Your task to perform on an android device: Search for Italian restaurants on Maps Image 0: 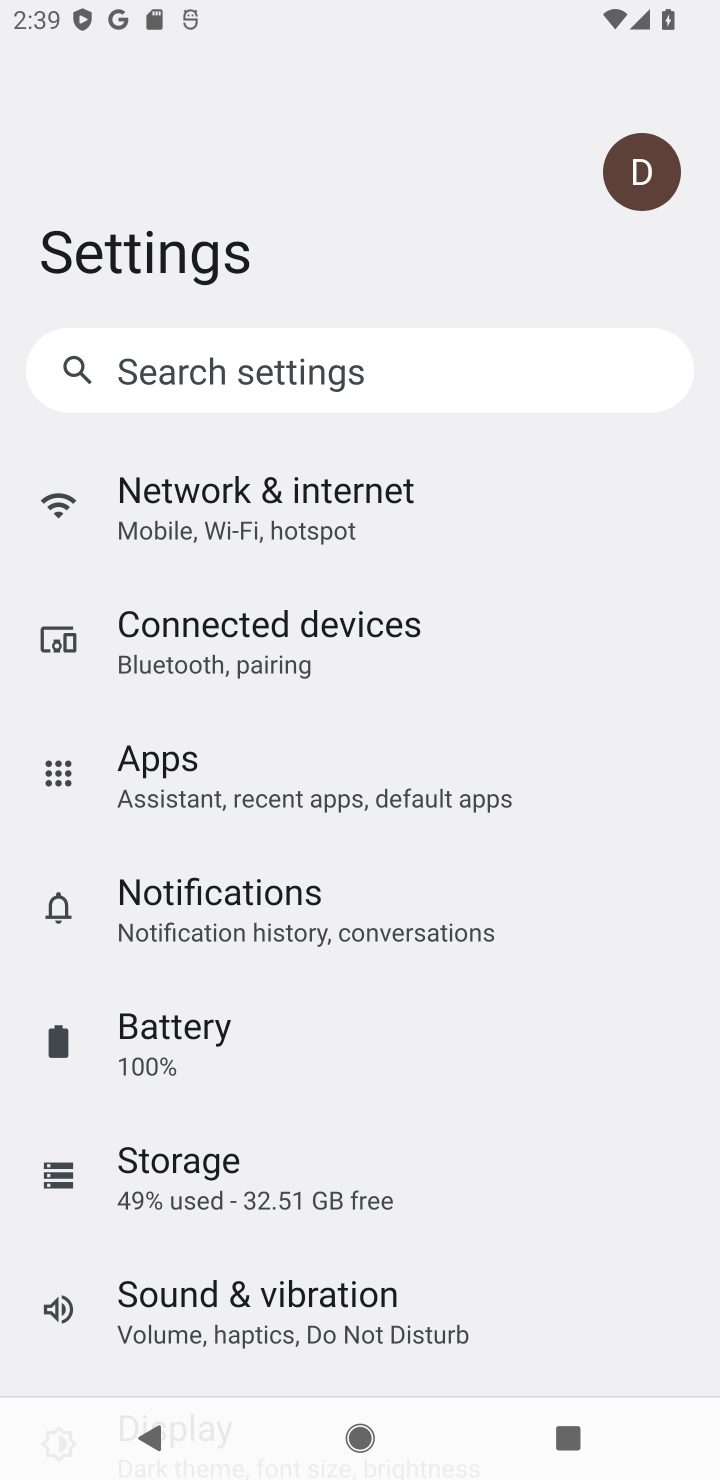
Step 0: press home button
Your task to perform on an android device: Search for Italian restaurants on Maps Image 1: 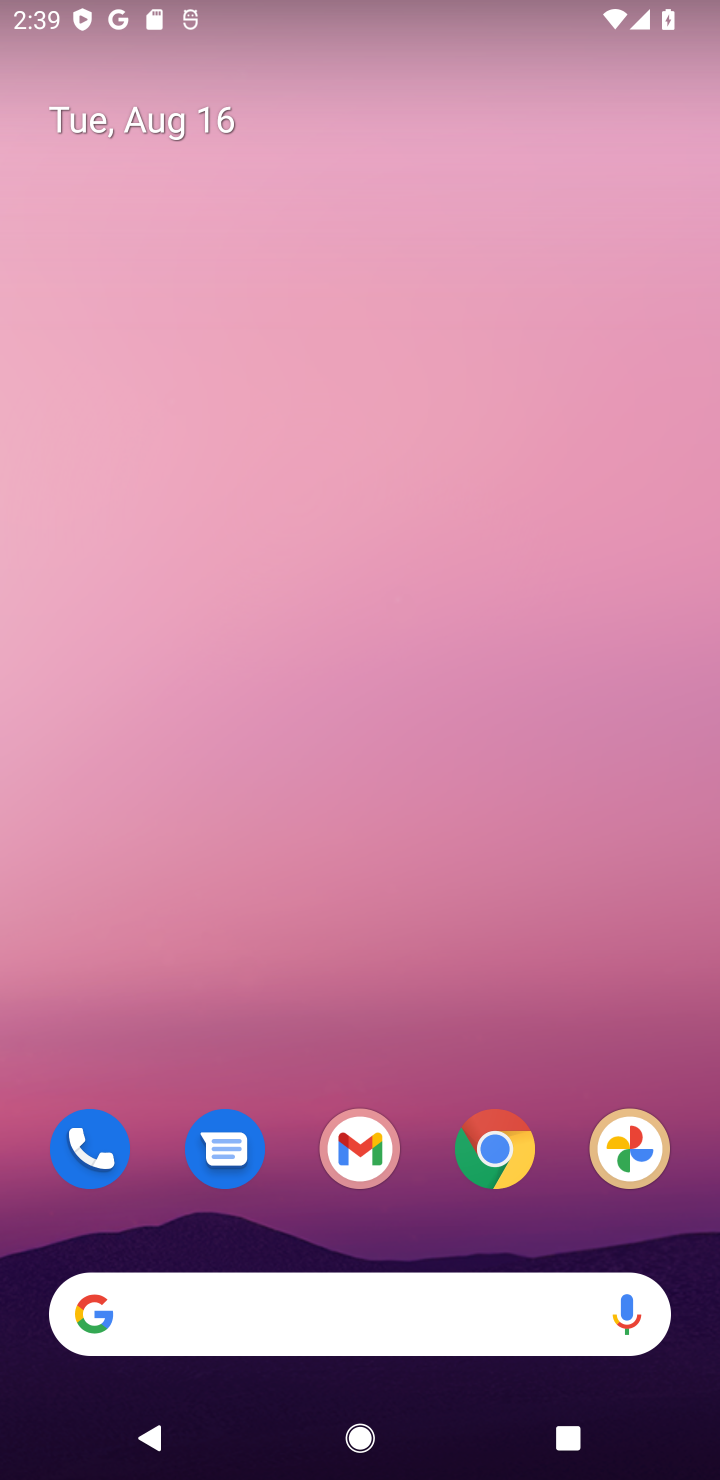
Step 1: drag from (419, 675) to (390, 0)
Your task to perform on an android device: Search for Italian restaurants on Maps Image 2: 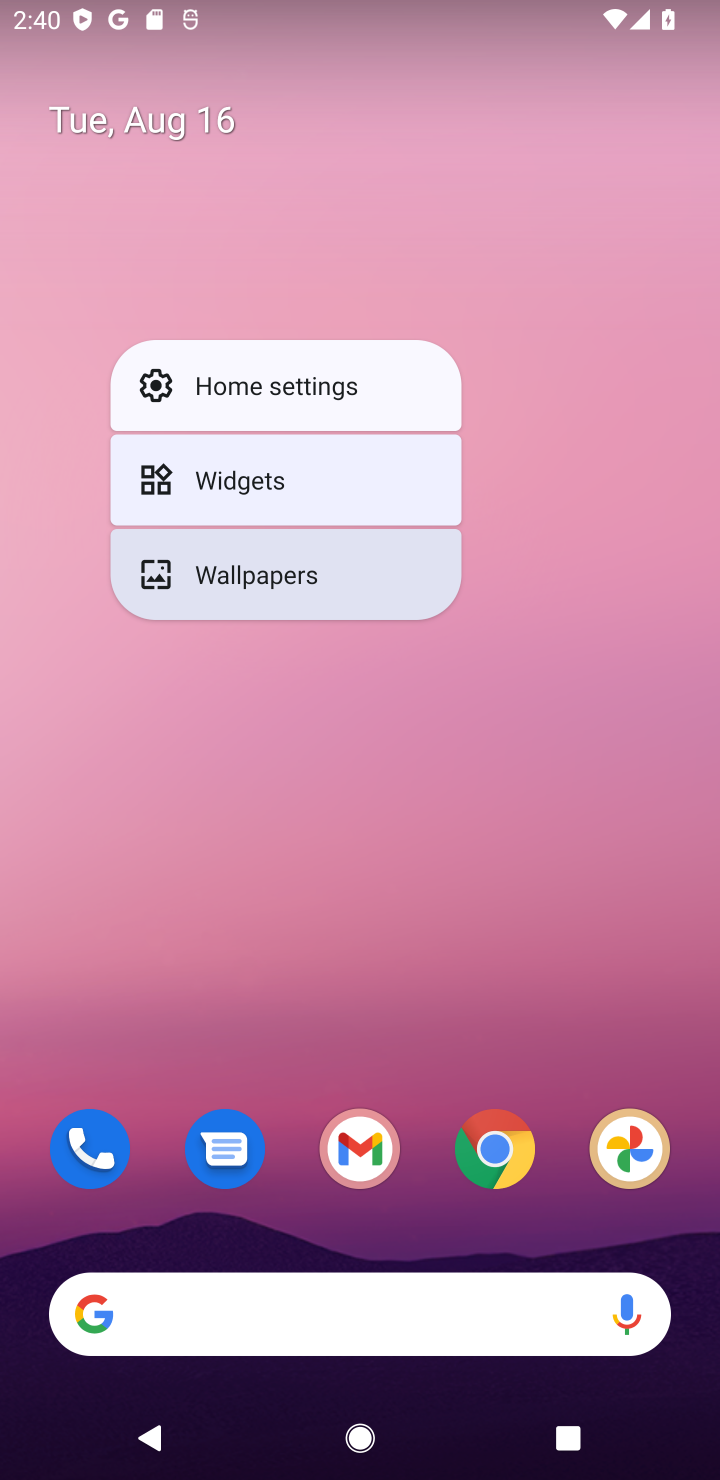
Step 2: click (503, 524)
Your task to perform on an android device: Search for Italian restaurants on Maps Image 3: 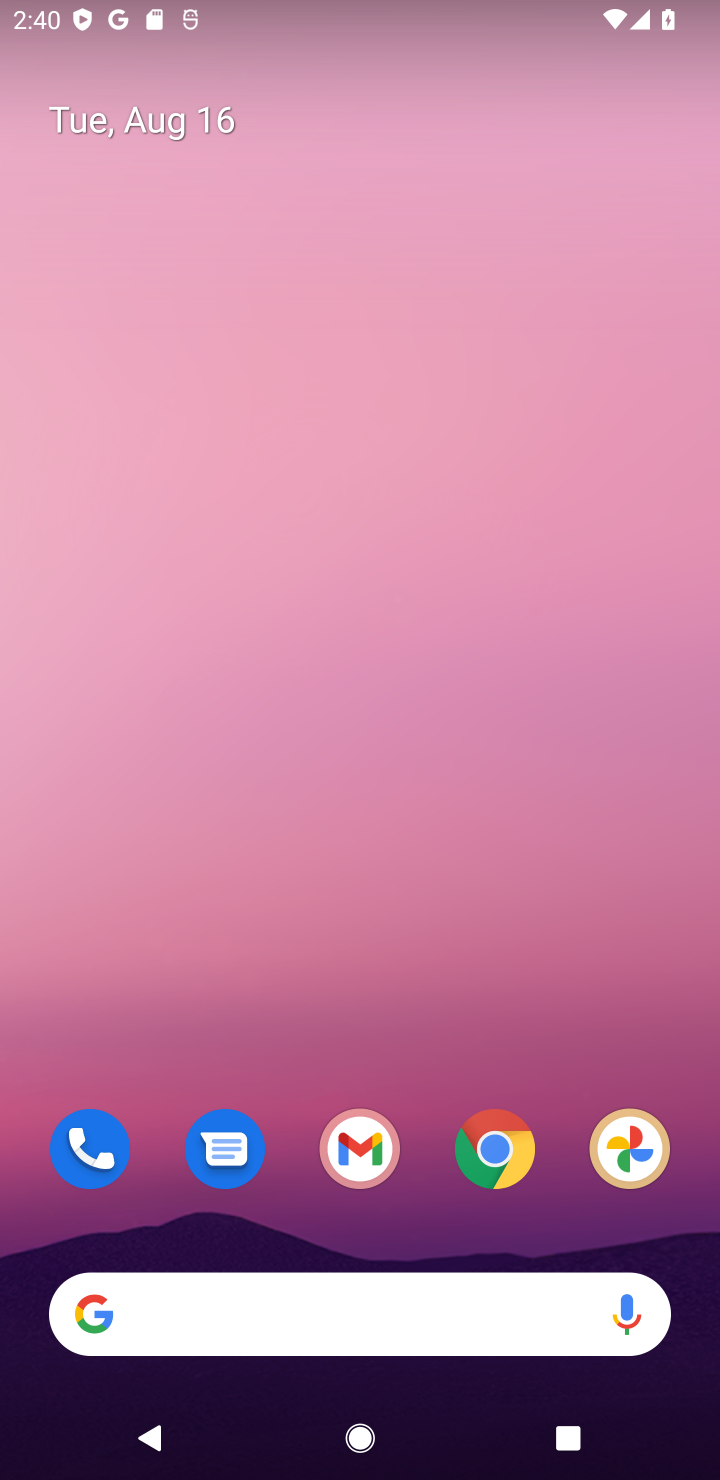
Step 3: drag from (370, 1032) to (454, 0)
Your task to perform on an android device: Search for Italian restaurants on Maps Image 4: 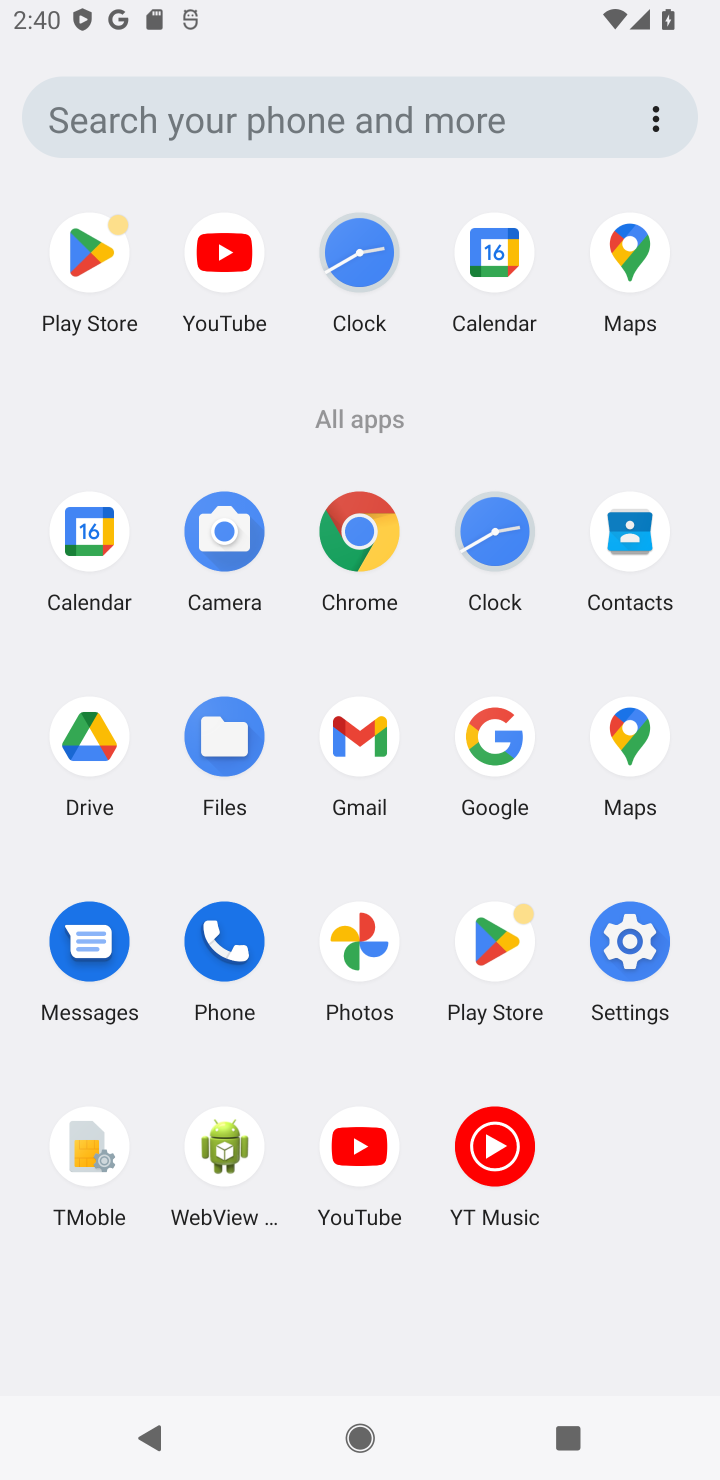
Step 4: click (625, 727)
Your task to perform on an android device: Search for Italian restaurants on Maps Image 5: 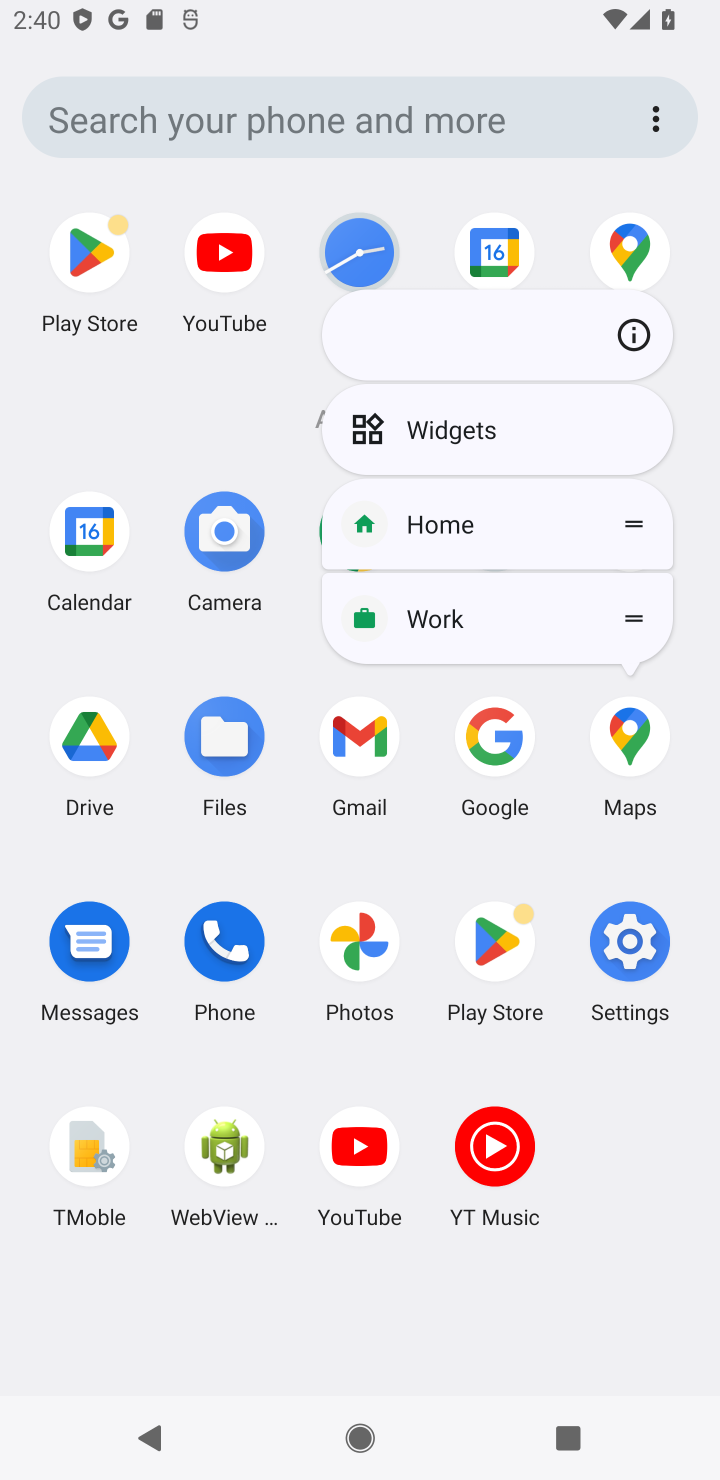
Step 5: click (625, 729)
Your task to perform on an android device: Search for Italian restaurants on Maps Image 6: 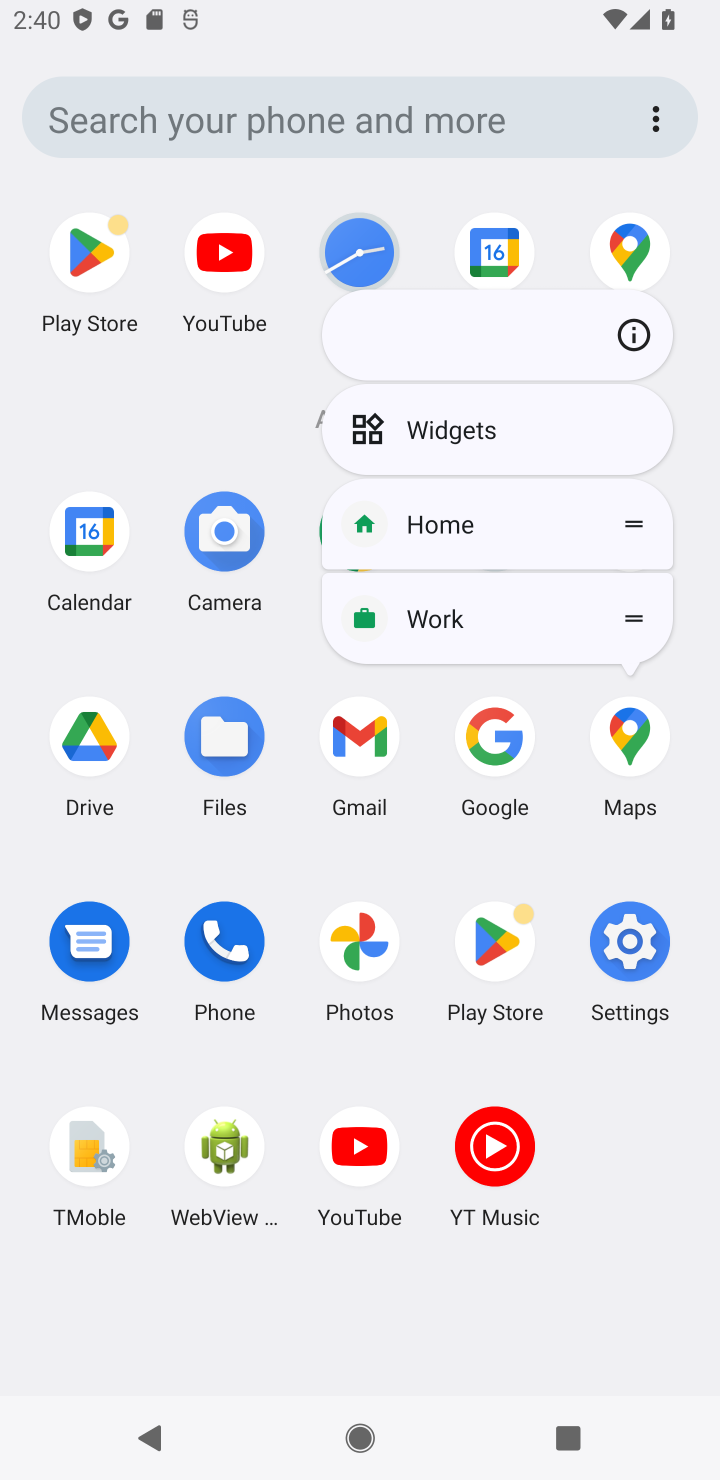
Step 6: click (625, 729)
Your task to perform on an android device: Search for Italian restaurants on Maps Image 7: 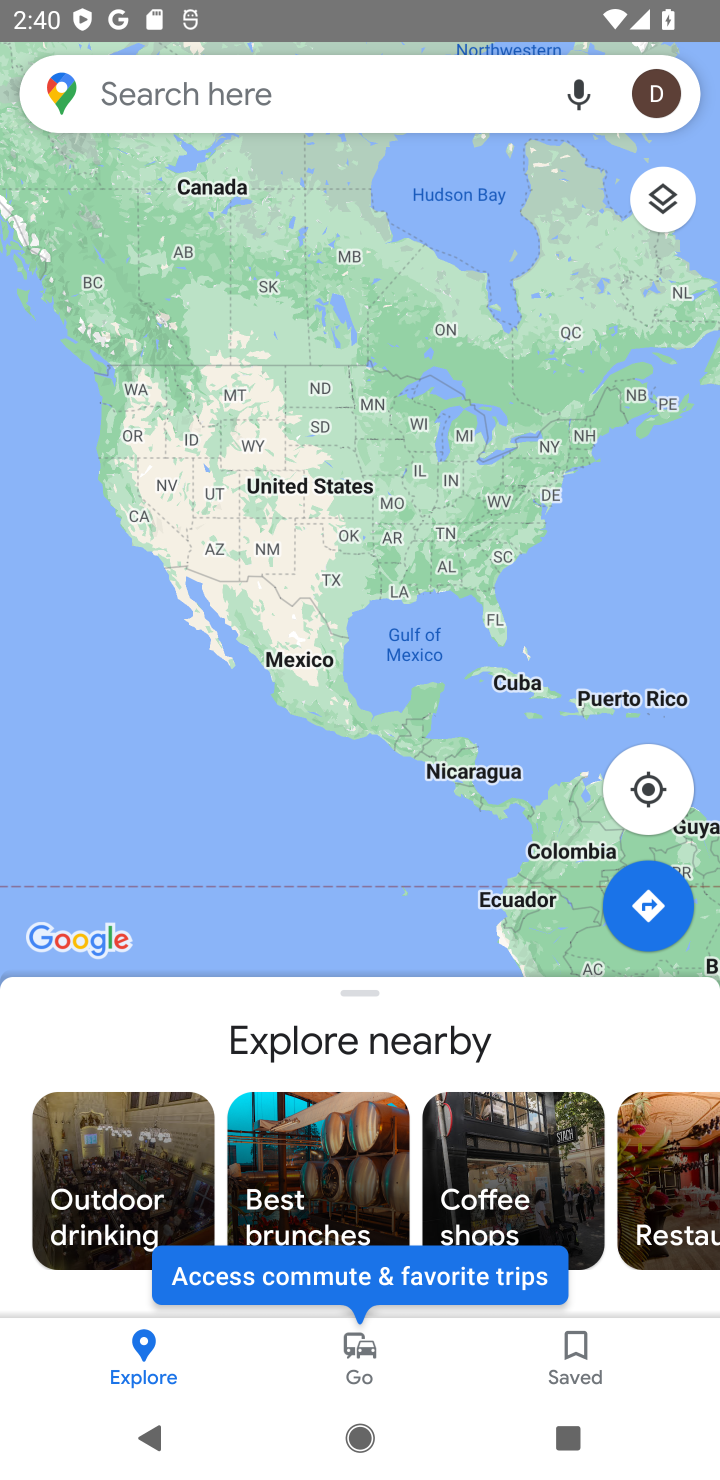
Step 7: click (423, 92)
Your task to perform on an android device: Search for Italian restaurants on Maps Image 8: 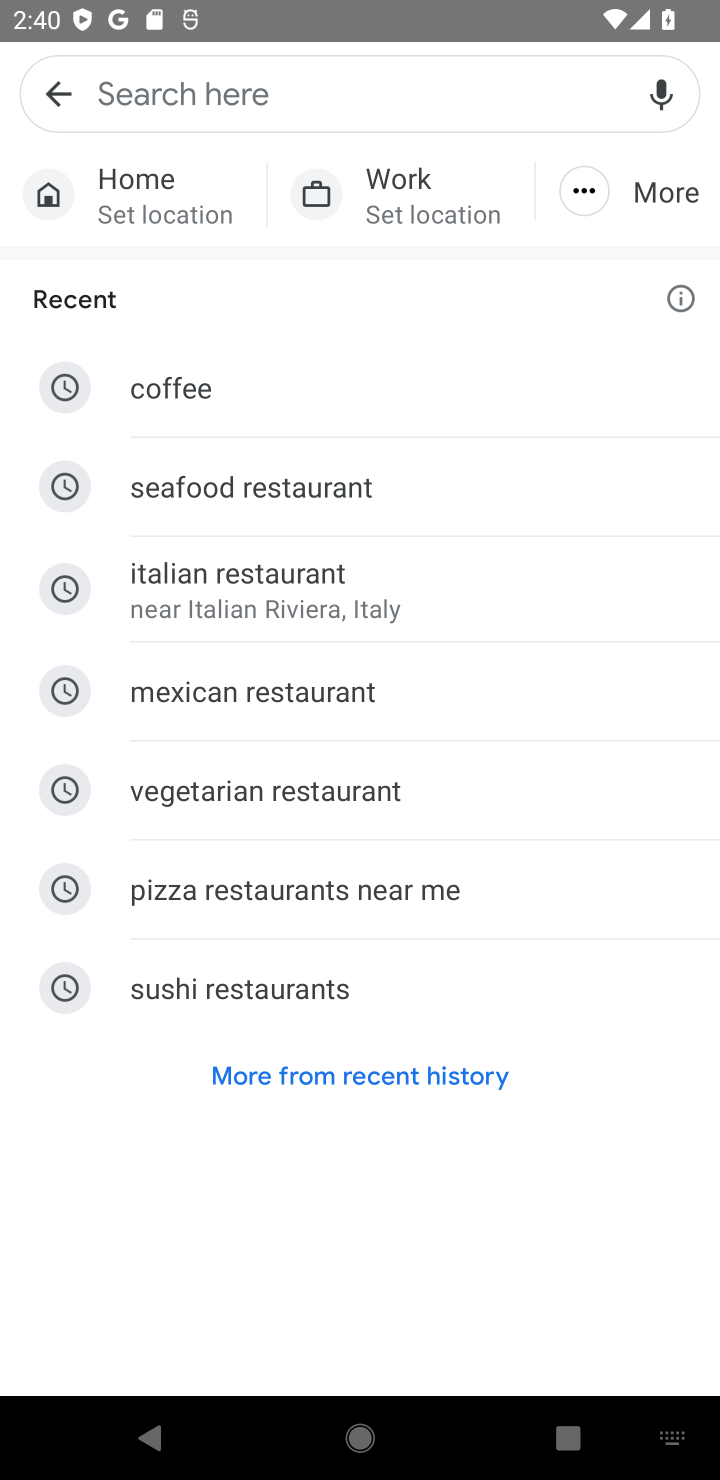
Step 8: click (321, 575)
Your task to perform on an android device: Search for Italian restaurants on Maps Image 9: 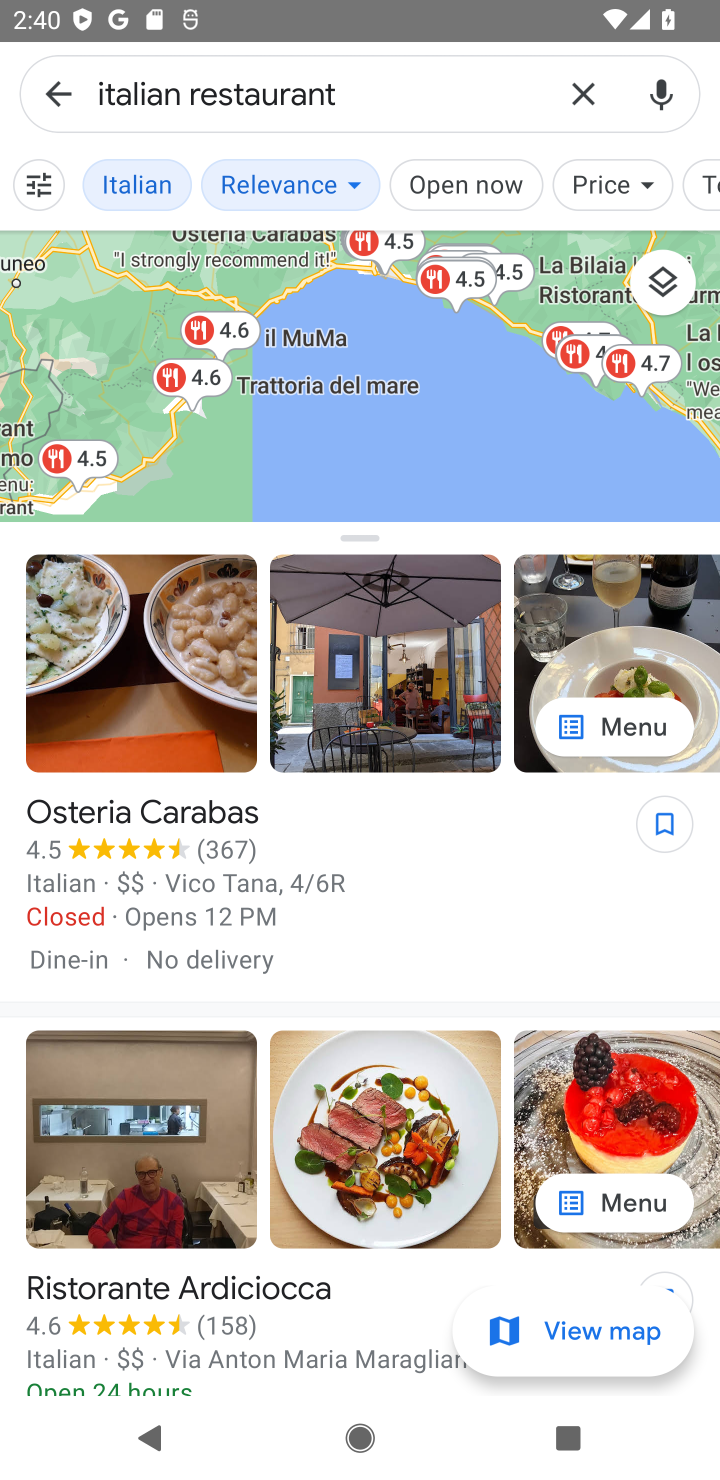
Step 9: task complete